Your task to perform on an android device: Go to Amazon Image 0: 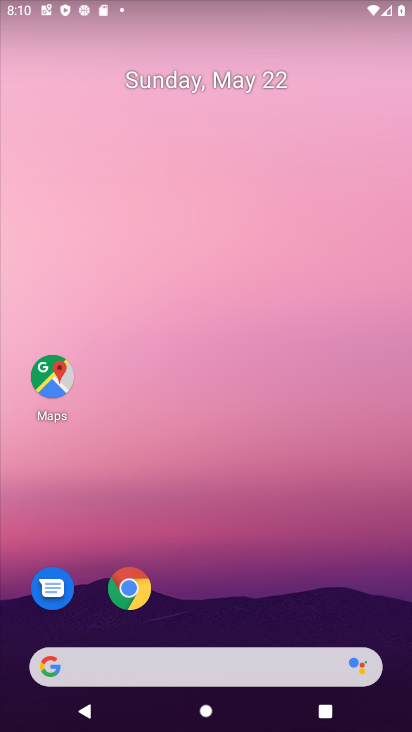
Step 0: click (130, 582)
Your task to perform on an android device: Go to Amazon Image 1: 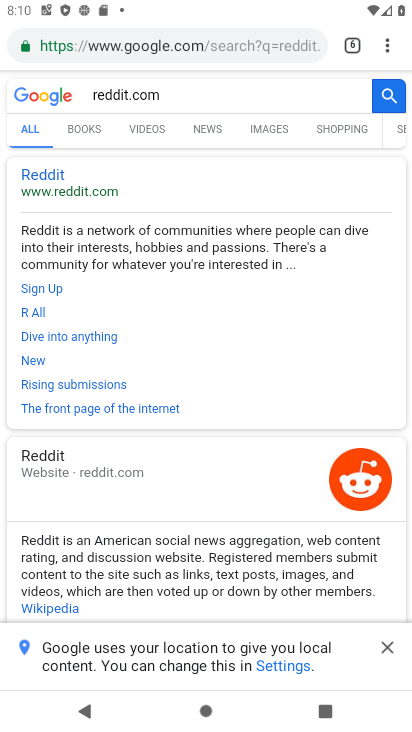
Step 1: click (379, 44)
Your task to perform on an android device: Go to Amazon Image 2: 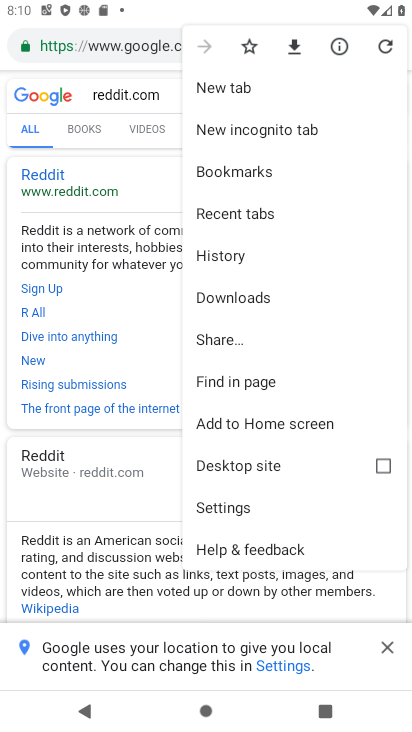
Step 2: click (230, 88)
Your task to perform on an android device: Go to Amazon Image 3: 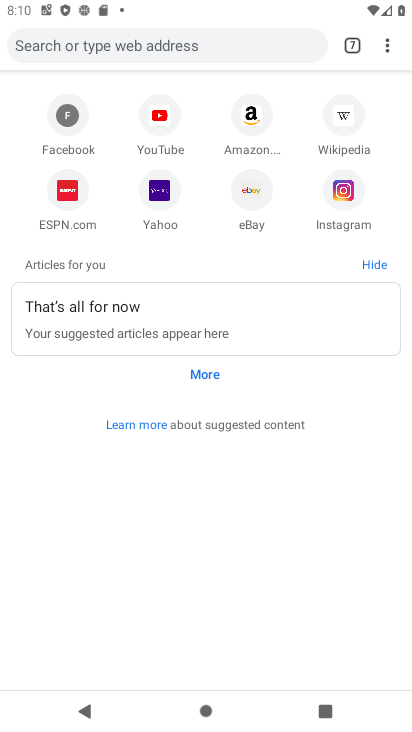
Step 3: click (257, 116)
Your task to perform on an android device: Go to Amazon Image 4: 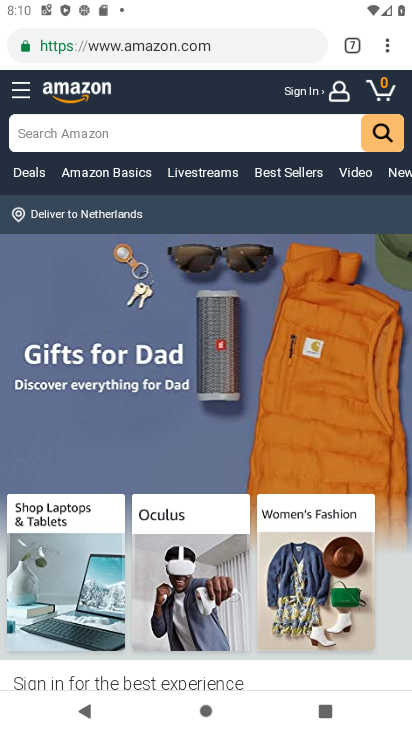
Step 4: task complete